Your task to perform on an android device: Go to Reddit.com Image 0: 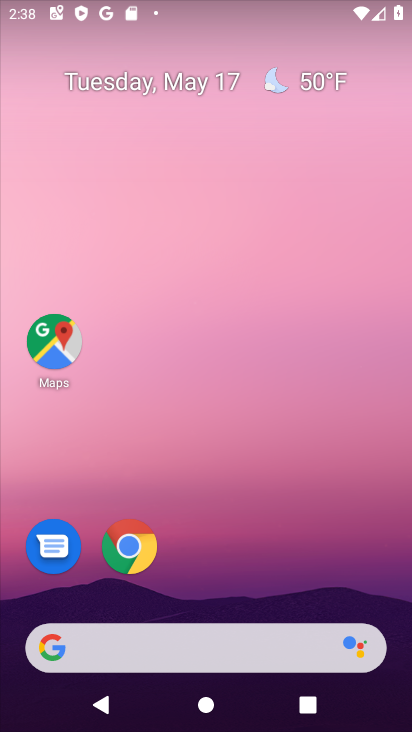
Step 0: click (134, 540)
Your task to perform on an android device: Go to Reddit.com Image 1: 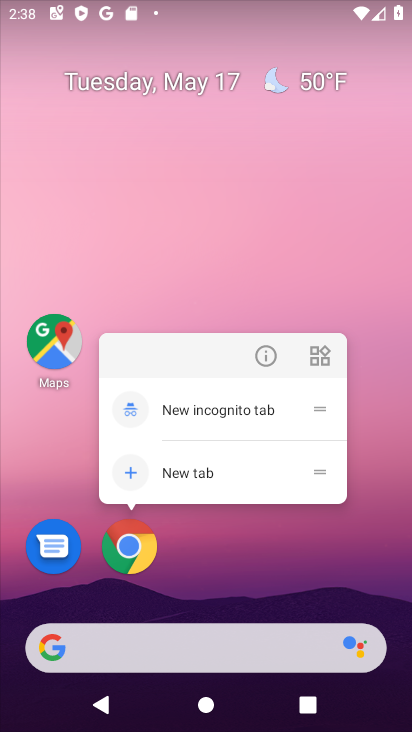
Step 1: click (133, 540)
Your task to perform on an android device: Go to Reddit.com Image 2: 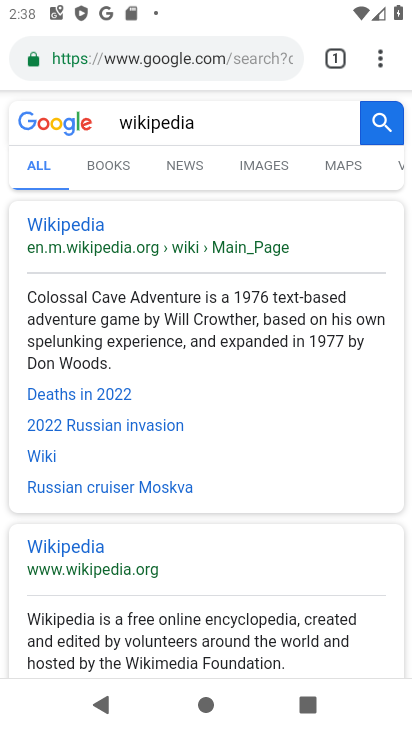
Step 2: click (247, 59)
Your task to perform on an android device: Go to Reddit.com Image 3: 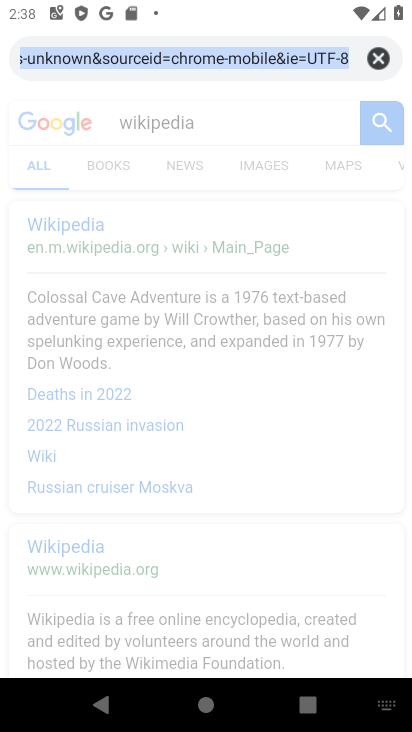
Step 3: type "Reddit.com"
Your task to perform on an android device: Go to Reddit.com Image 4: 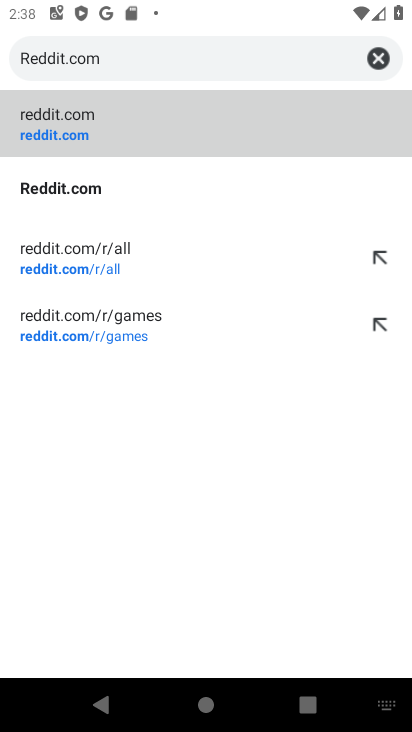
Step 4: click (102, 192)
Your task to perform on an android device: Go to Reddit.com Image 5: 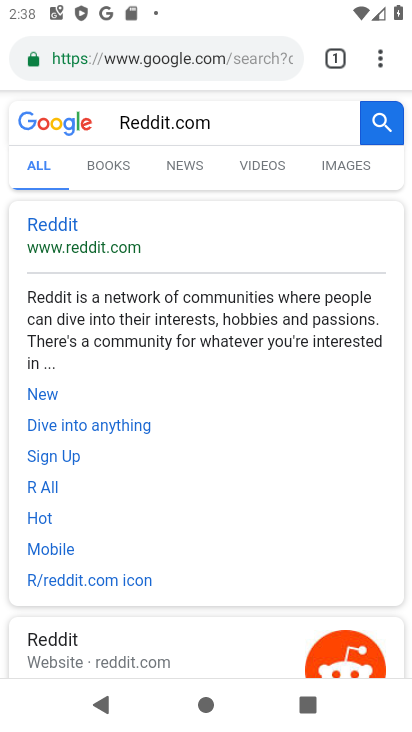
Step 5: task complete